Your task to perform on an android device: Open wifi settings Image 0: 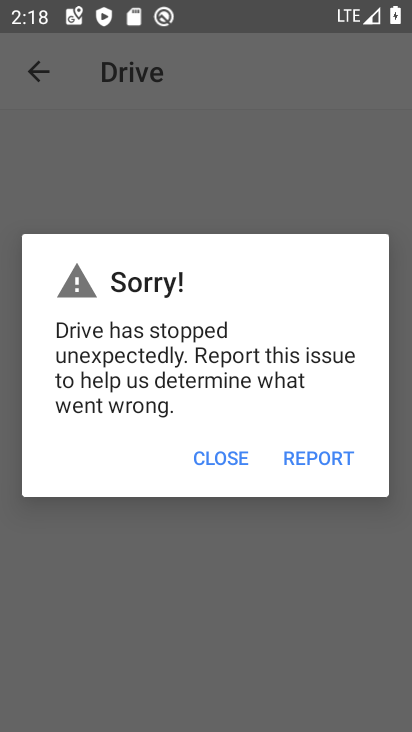
Step 0: press back button
Your task to perform on an android device: Open wifi settings Image 1: 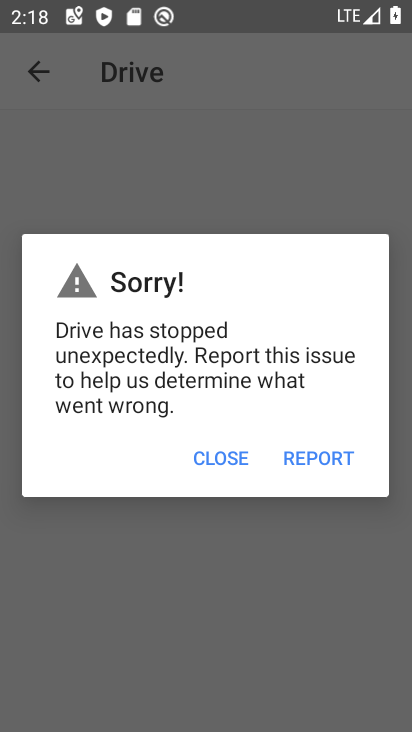
Step 1: press home button
Your task to perform on an android device: Open wifi settings Image 2: 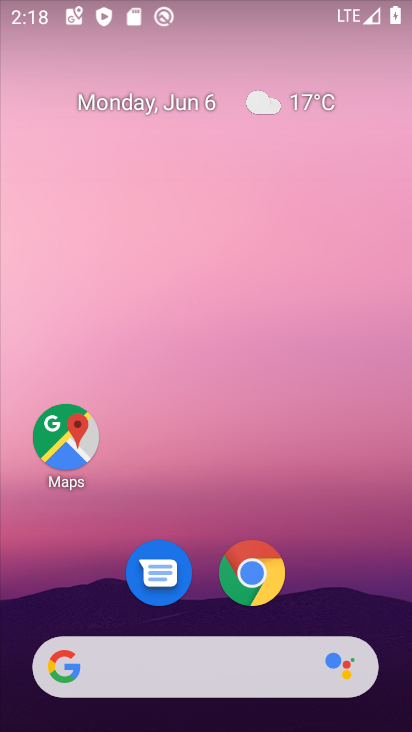
Step 2: drag from (359, 598) to (325, 113)
Your task to perform on an android device: Open wifi settings Image 3: 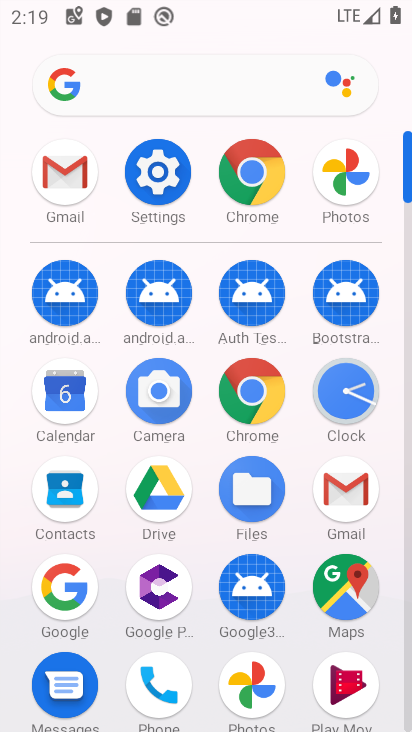
Step 3: click (170, 184)
Your task to perform on an android device: Open wifi settings Image 4: 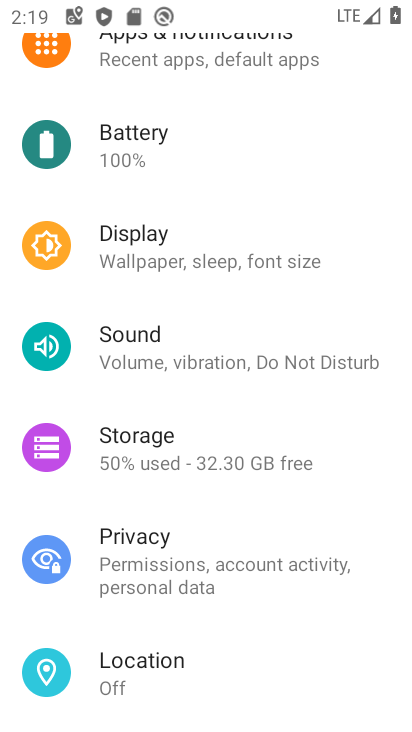
Step 4: drag from (344, 299) to (355, 413)
Your task to perform on an android device: Open wifi settings Image 5: 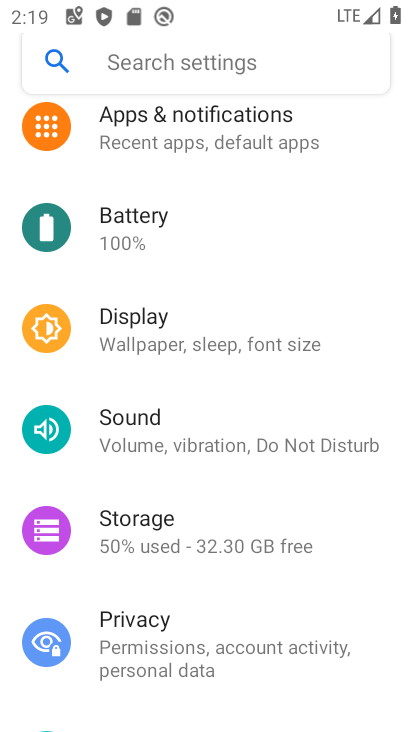
Step 5: drag from (366, 263) to (366, 385)
Your task to perform on an android device: Open wifi settings Image 6: 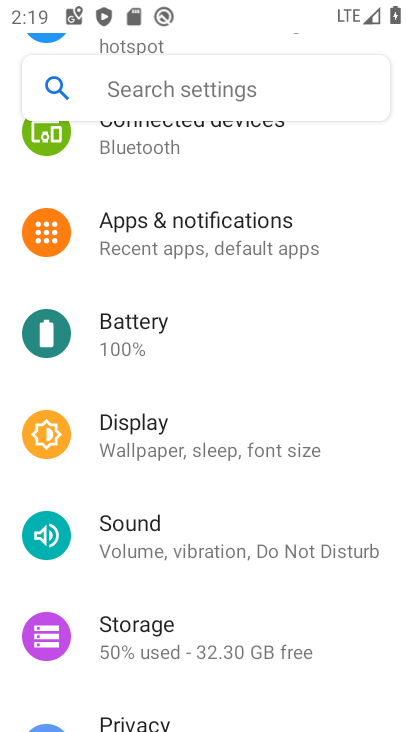
Step 6: drag from (353, 294) to (353, 412)
Your task to perform on an android device: Open wifi settings Image 7: 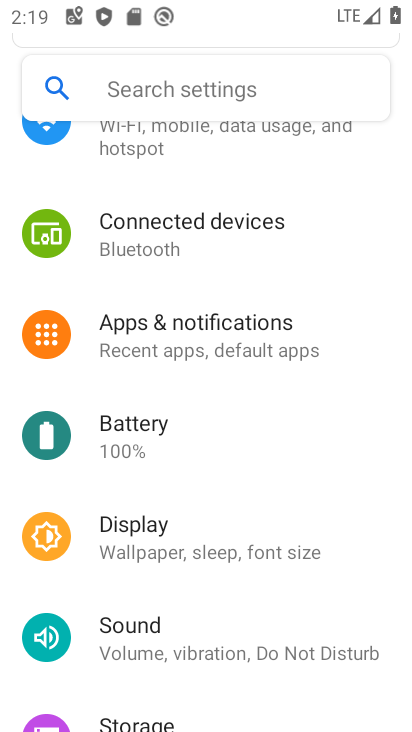
Step 7: drag from (358, 245) to (360, 398)
Your task to perform on an android device: Open wifi settings Image 8: 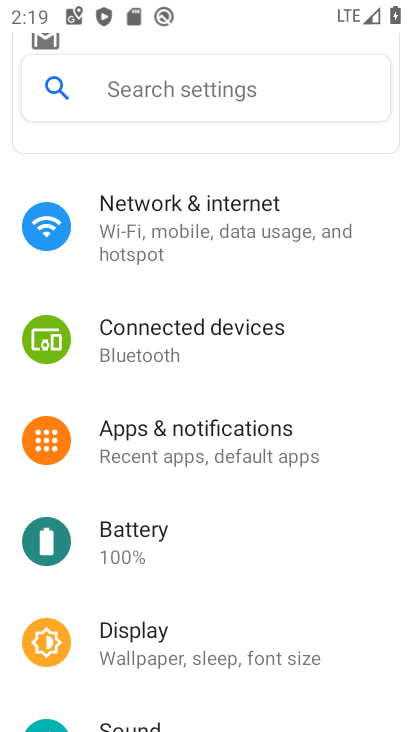
Step 8: drag from (371, 211) to (368, 414)
Your task to perform on an android device: Open wifi settings Image 9: 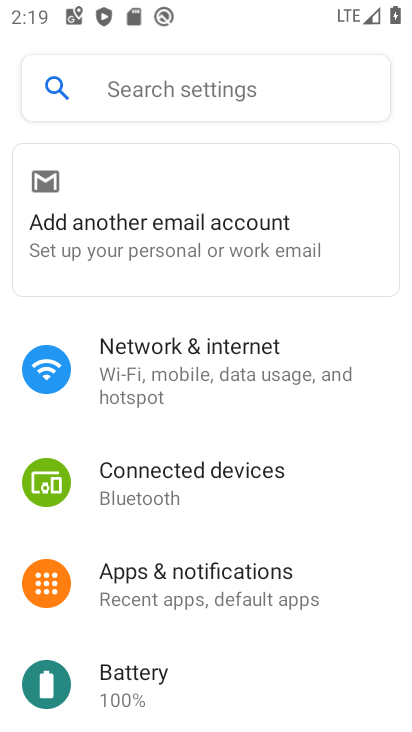
Step 9: drag from (360, 199) to (363, 375)
Your task to perform on an android device: Open wifi settings Image 10: 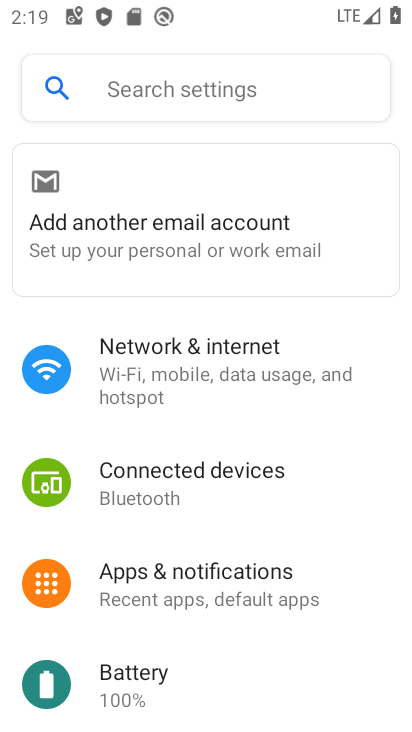
Step 10: click (208, 364)
Your task to perform on an android device: Open wifi settings Image 11: 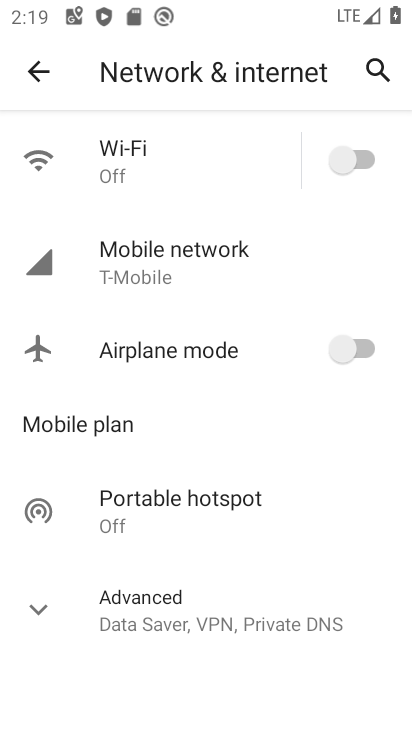
Step 11: click (169, 157)
Your task to perform on an android device: Open wifi settings Image 12: 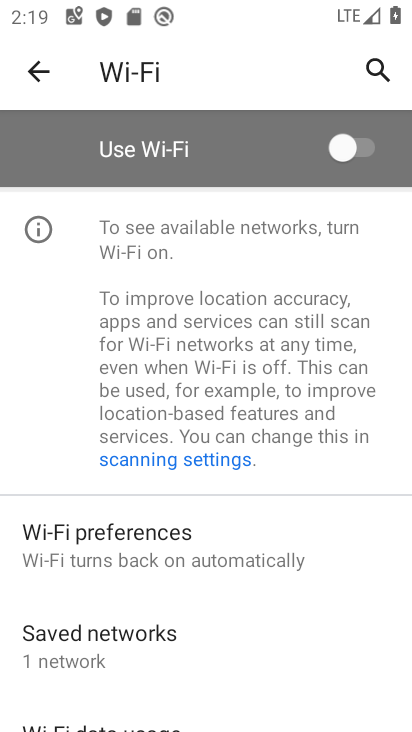
Step 12: task complete